Your task to perform on an android device: Show me the alarms in the clock app Image 0: 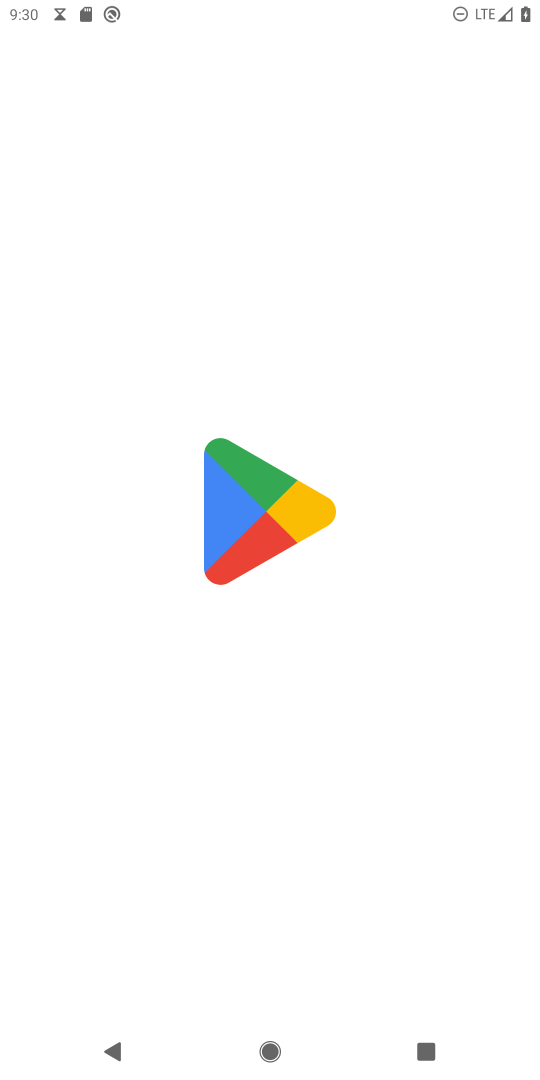
Step 0: press home button
Your task to perform on an android device: Show me the alarms in the clock app Image 1: 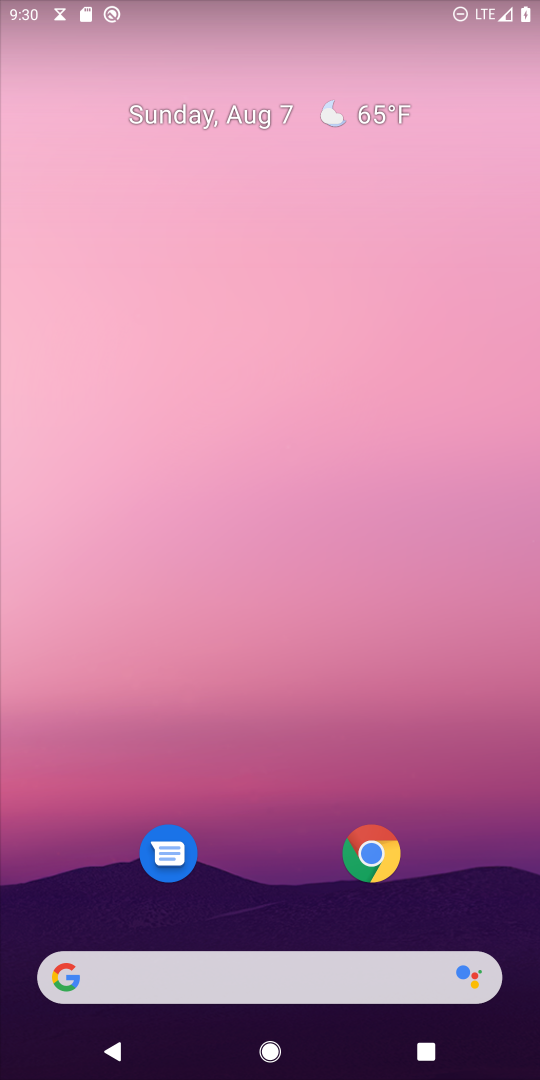
Step 1: drag from (305, 912) to (318, 136)
Your task to perform on an android device: Show me the alarms in the clock app Image 2: 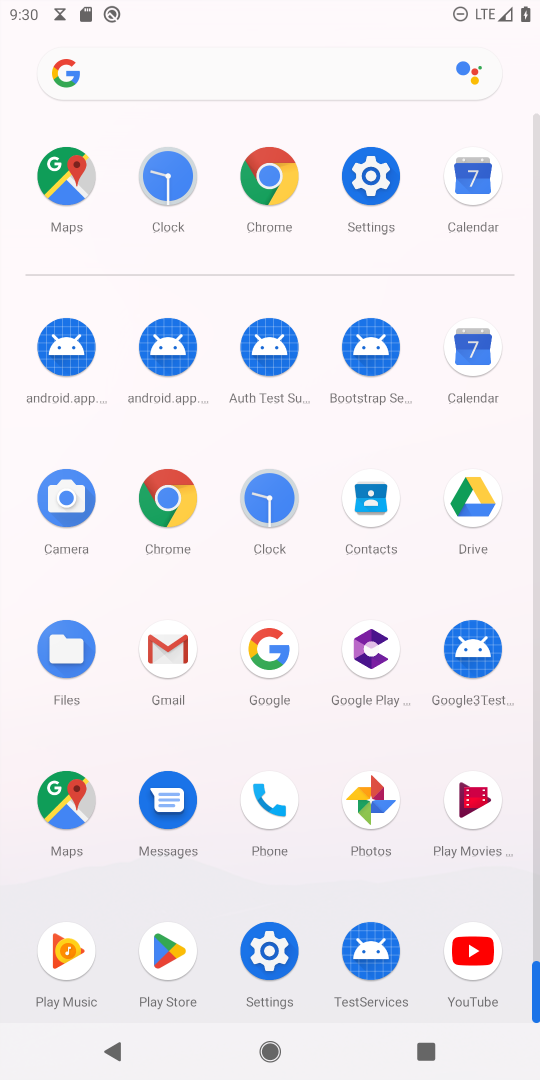
Step 2: click (247, 482)
Your task to perform on an android device: Show me the alarms in the clock app Image 3: 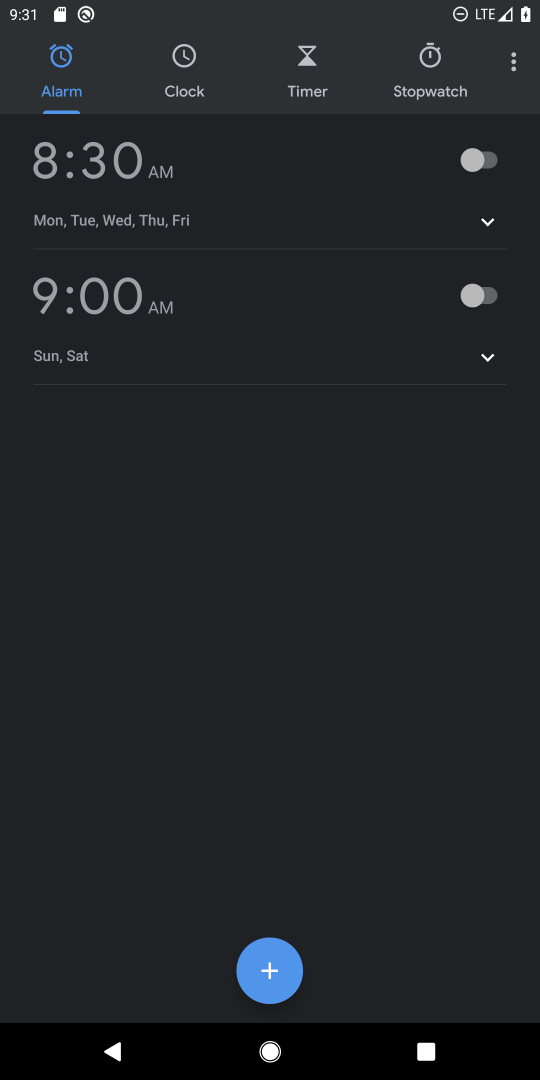
Step 3: task complete